Your task to perform on an android device: open sync settings in chrome Image 0: 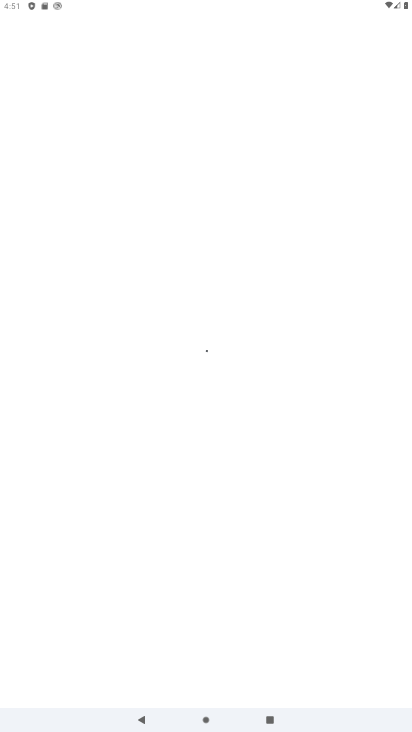
Step 0: press home button
Your task to perform on an android device: open sync settings in chrome Image 1: 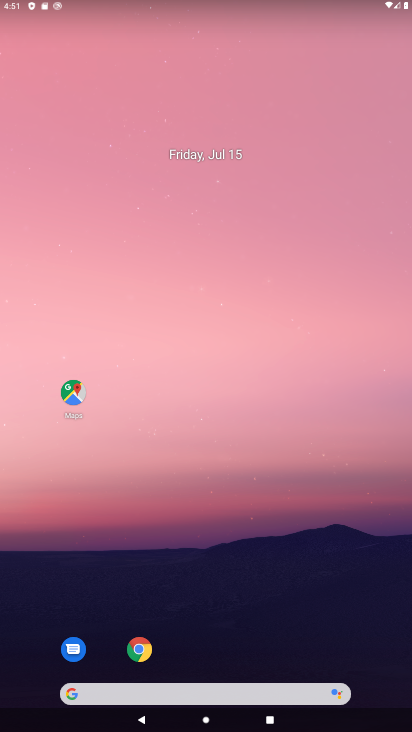
Step 1: click (140, 650)
Your task to perform on an android device: open sync settings in chrome Image 2: 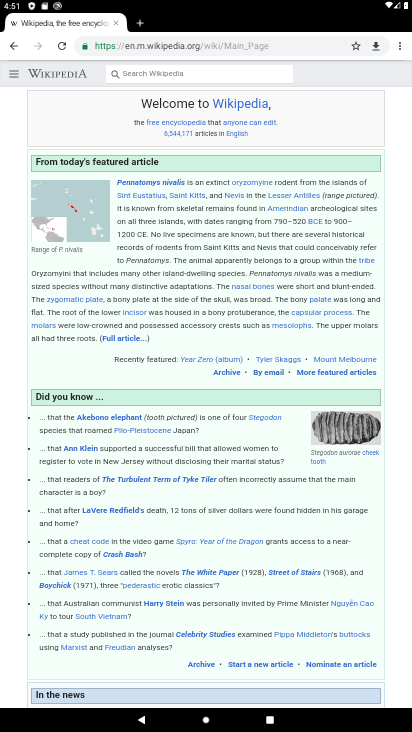
Step 2: click (403, 47)
Your task to perform on an android device: open sync settings in chrome Image 3: 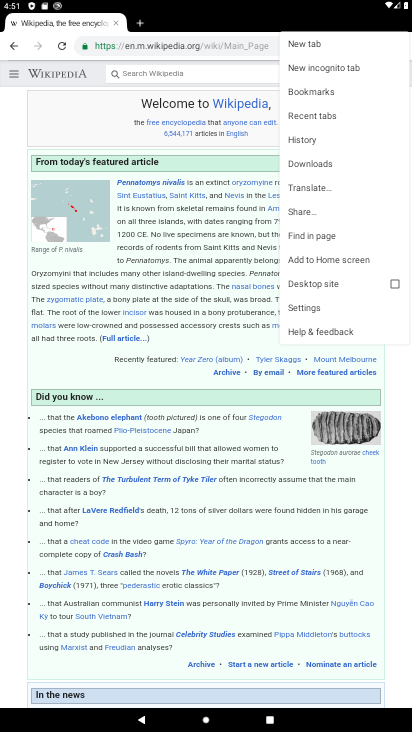
Step 3: click (315, 308)
Your task to perform on an android device: open sync settings in chrome Image 4: 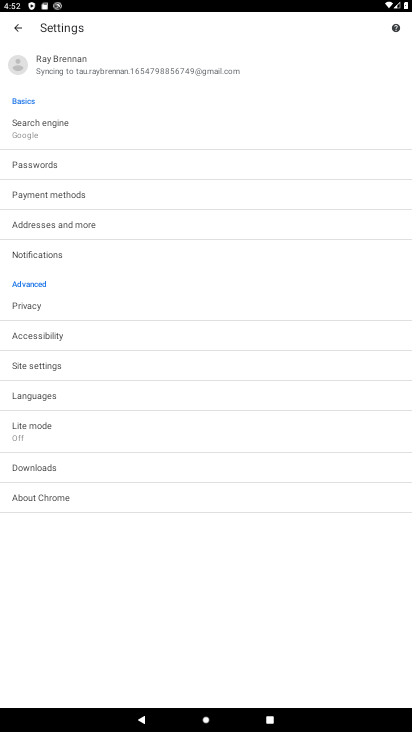
Step 4: click (54, 364)
Your task to perform on an android device: open sync settings in chrome Image 5: 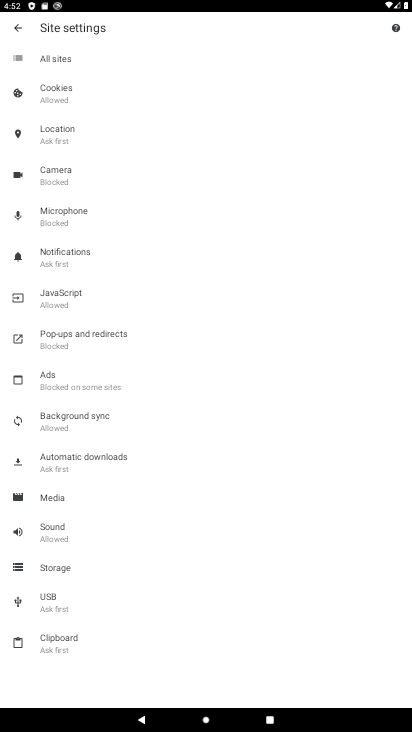
Step 5: click (80, 421)
Your task to perform on an android device: open sync settings in chrome Image 6: 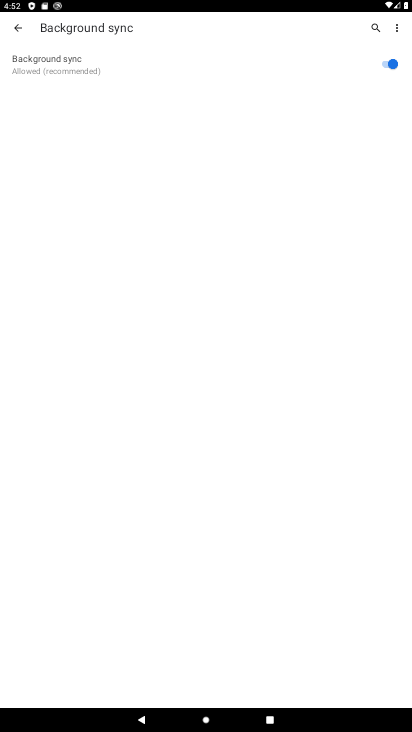
Step 6: task complete